Your task to perform on an android device: Open calendar and show me the fourth week of next month Image 0: 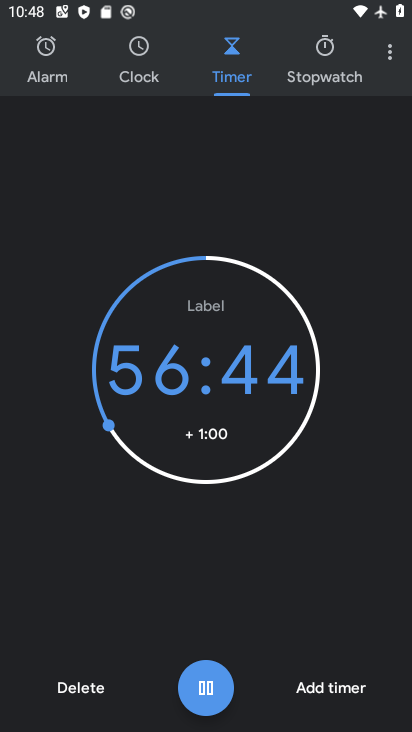
Step 0: drag from (232, 491) to (230, 199)
Your task to perform on an android device: Open calendar and show me the fourth week of next month Image 1: 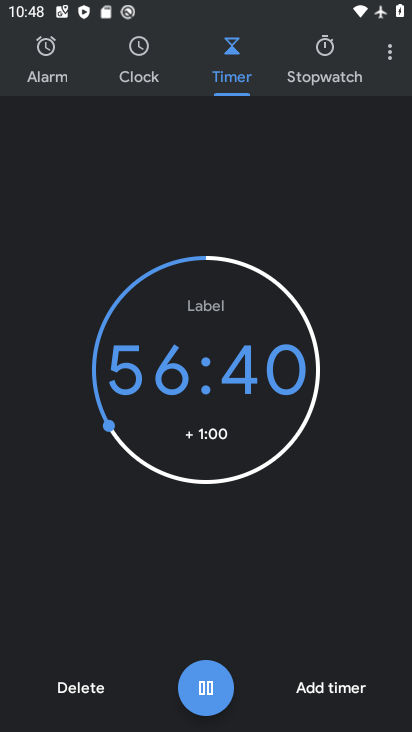
Step 1: press back button
Your task to perform on an android device: Open calendar and show me the fourth week of next month Image 2: 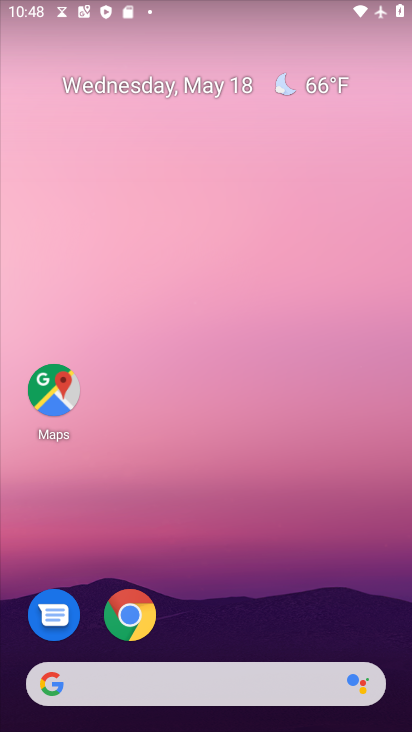
Step 2: drag from (242, 569) to (203, 11)
Your task to perform on an android device: Open calendar and show me the fourth week of next month Image 3: 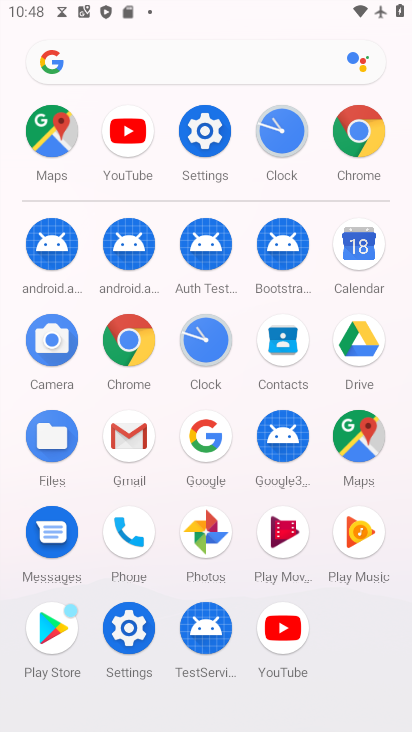
Step 3: drag from (5, 560) to (18, 273)
Your task to perform on an android device: Open calendar and show me the fourth week of next month Image 4: 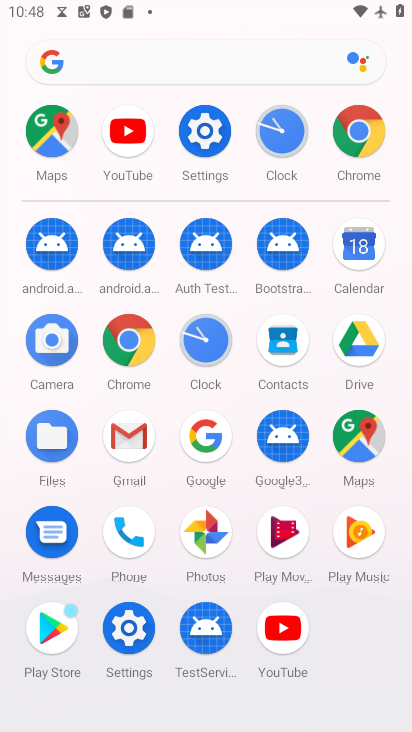
Step 4: click (357, 242)
Your task to perform on an android device: Open calendar and show me the fourth week of next month Image 5: 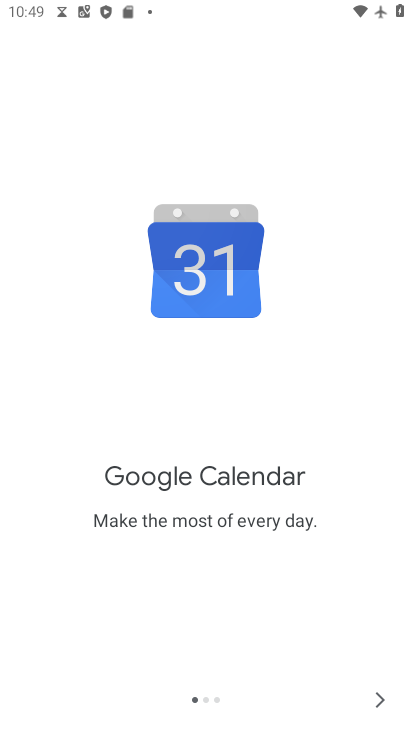
Step 5: click (367, 699)
Your task to perform on an android device: Open calendar and show me the fourth week of next month Image 6: 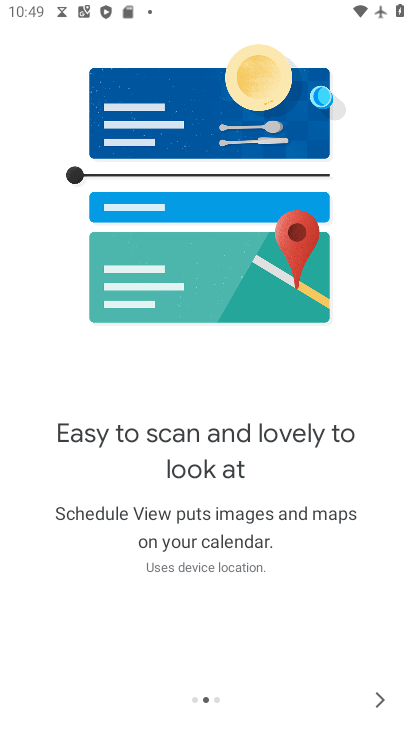
Step 6: click (367, 699)
Your task to perform on an android device: Open calendar and show me the fourth week of next month Image 7: 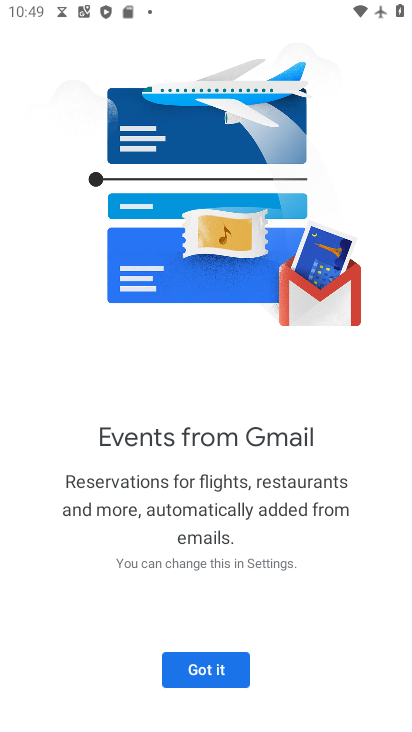
Step 7: click (226, 663)
Your task to perform on an android device: Open calendar and show me the fourth week of next month Image 8: 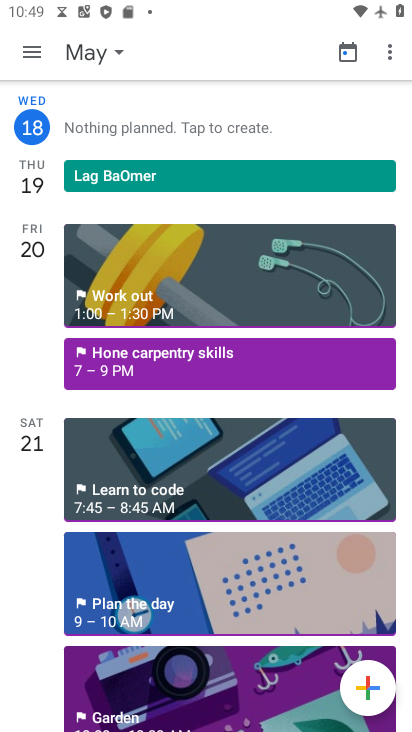
Step 8: click (88, 51)
Your task to perform on an android device: Open calendar and show me the fourth week of next month Image 9: 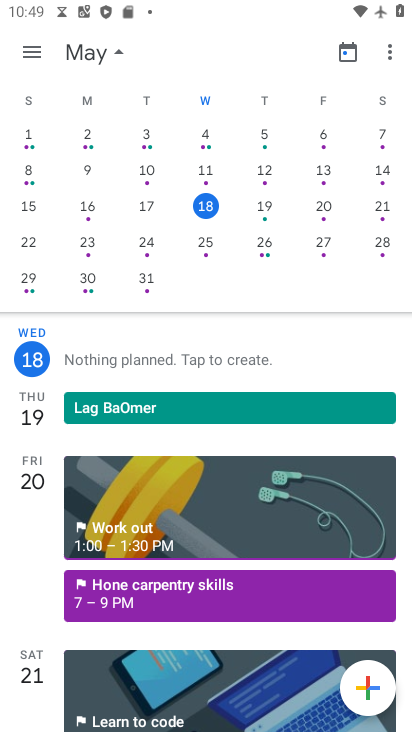
Step 9: drag from (376, 174) to (19, 163)
Your task to perform on an android device: Open calendar and show me the fourth week of next month Image 10: 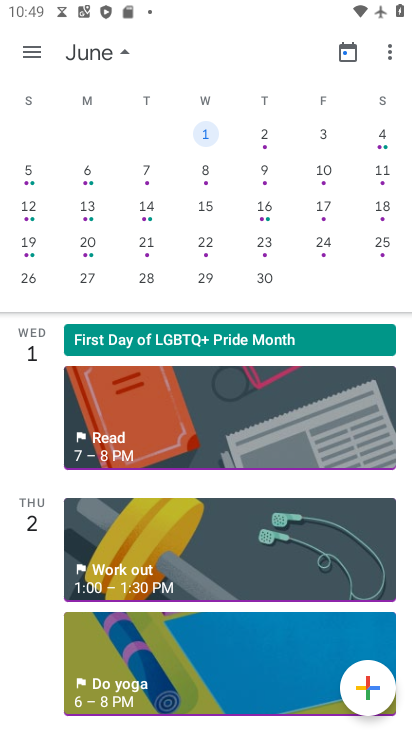
Step 10: click (41, 245)
Your task to perform on an android device: Open calendar and show me the fourth week of next month Image 11: 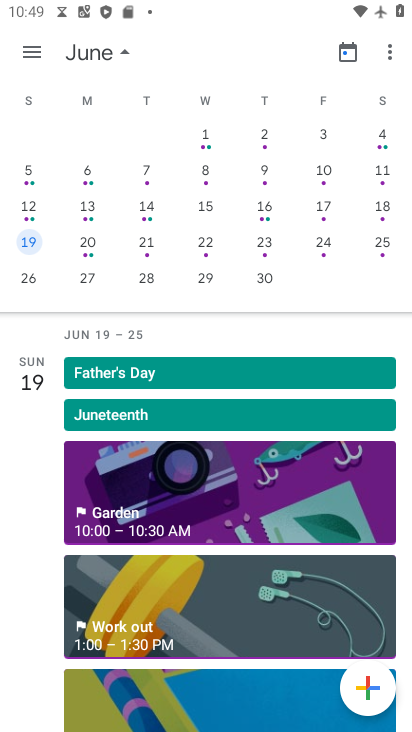
Step 11: click (30, 49)
Your task to perform on an android device: Open calendar and show me the fourth week of next month Image 12: 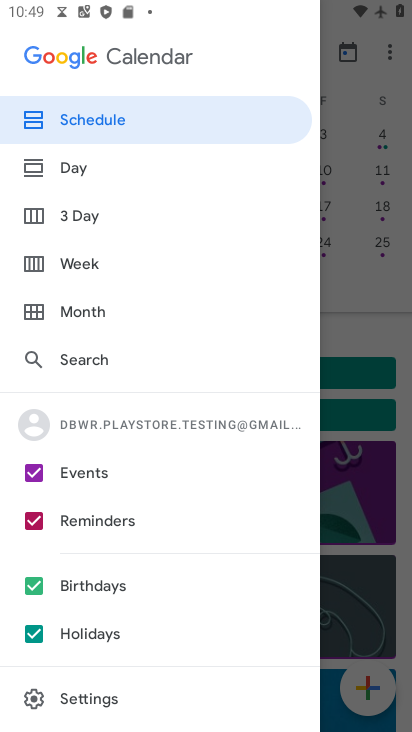
Step 12: click (93, 265)
Your task to perform on an android device: Open calendar and show me the fourth week of next month Image 13: 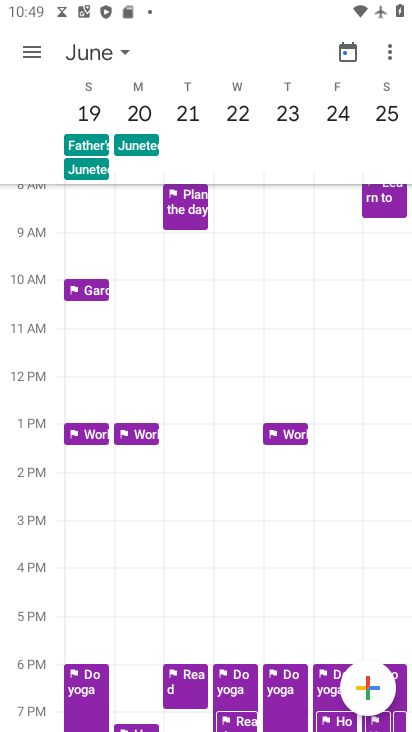
Step 13: task complete